Your task to perform on an android device: change the clock display to analog Image 0: 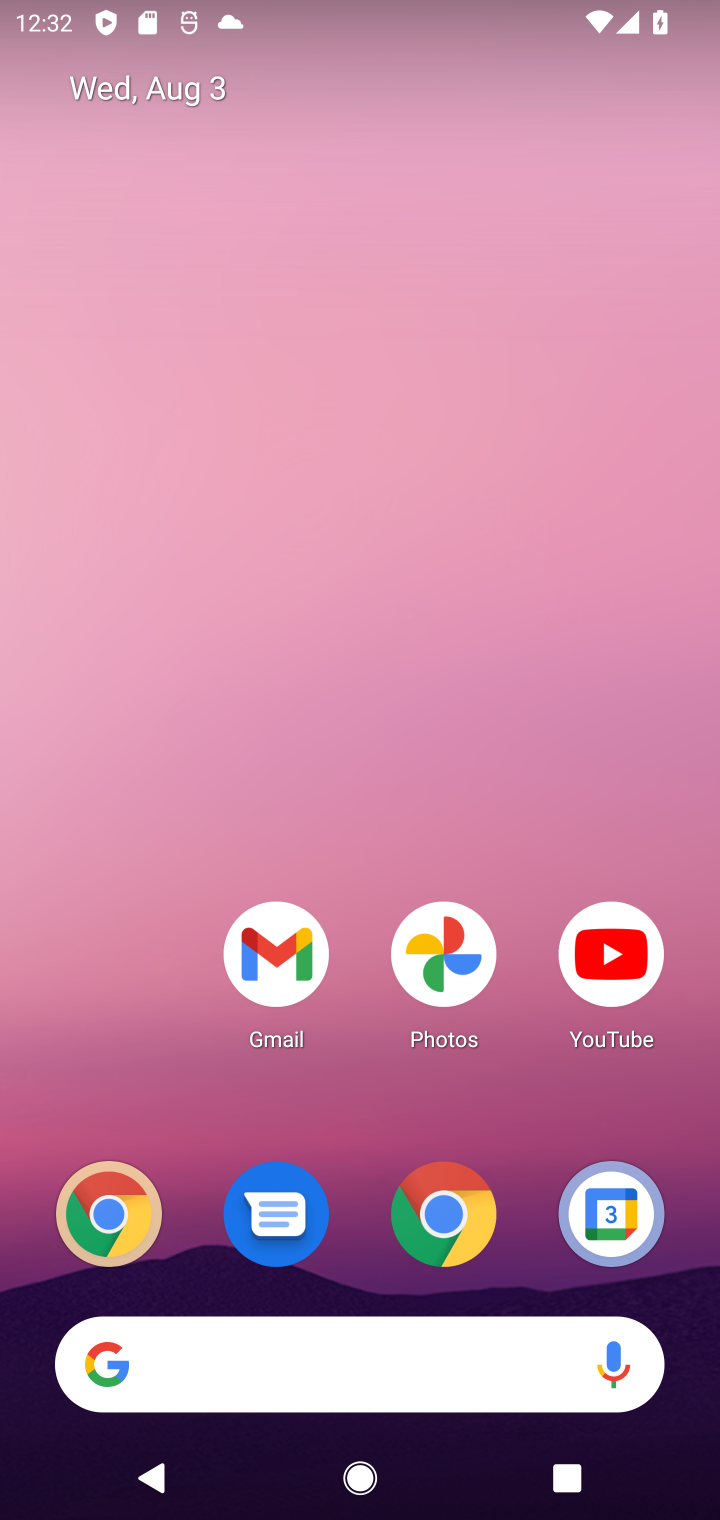
Step 0: drag from (359, 1295) to (334, 130)
Your task to perform on an android device: change the clock display to analog Image 1: 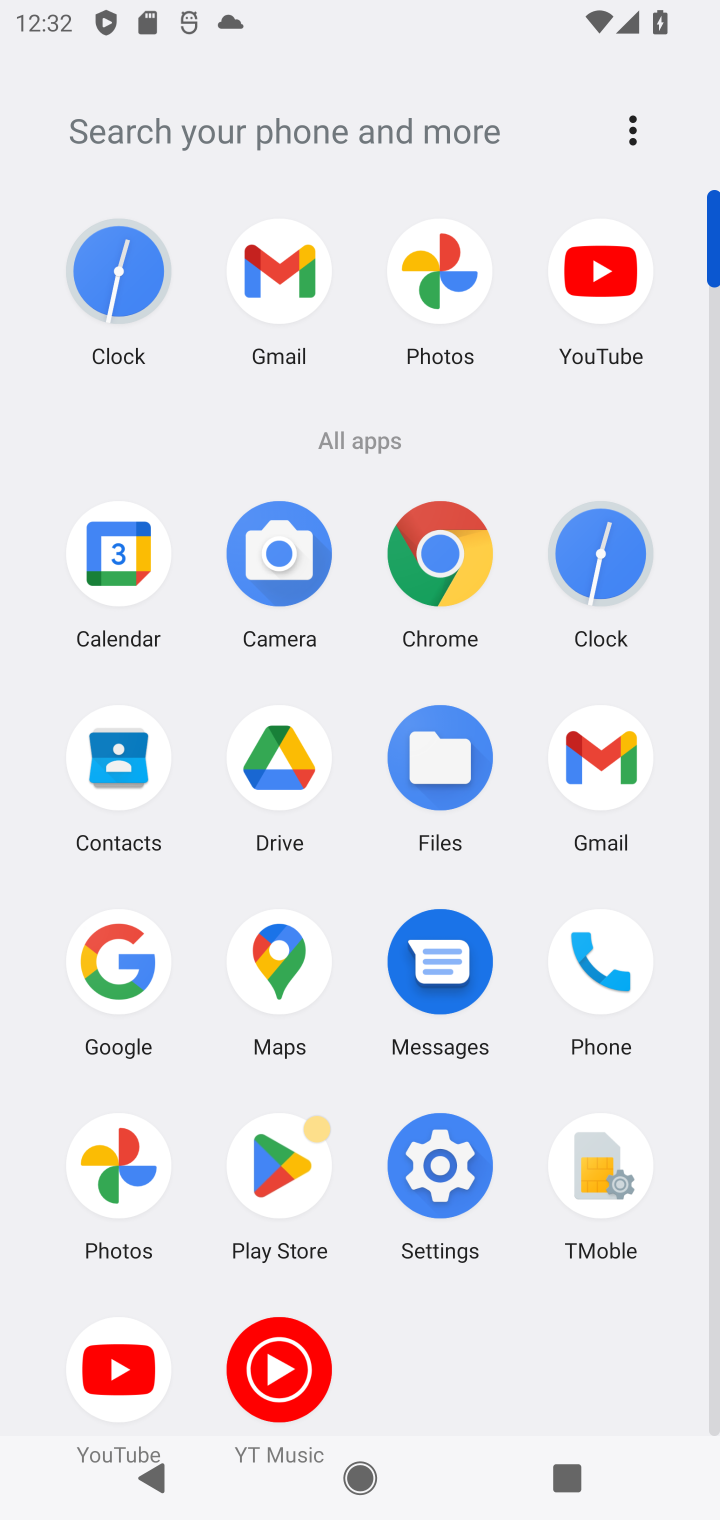
Step 1: click (133, 312)
Your task to perform on an android device: change the clock display to analog Image 2: 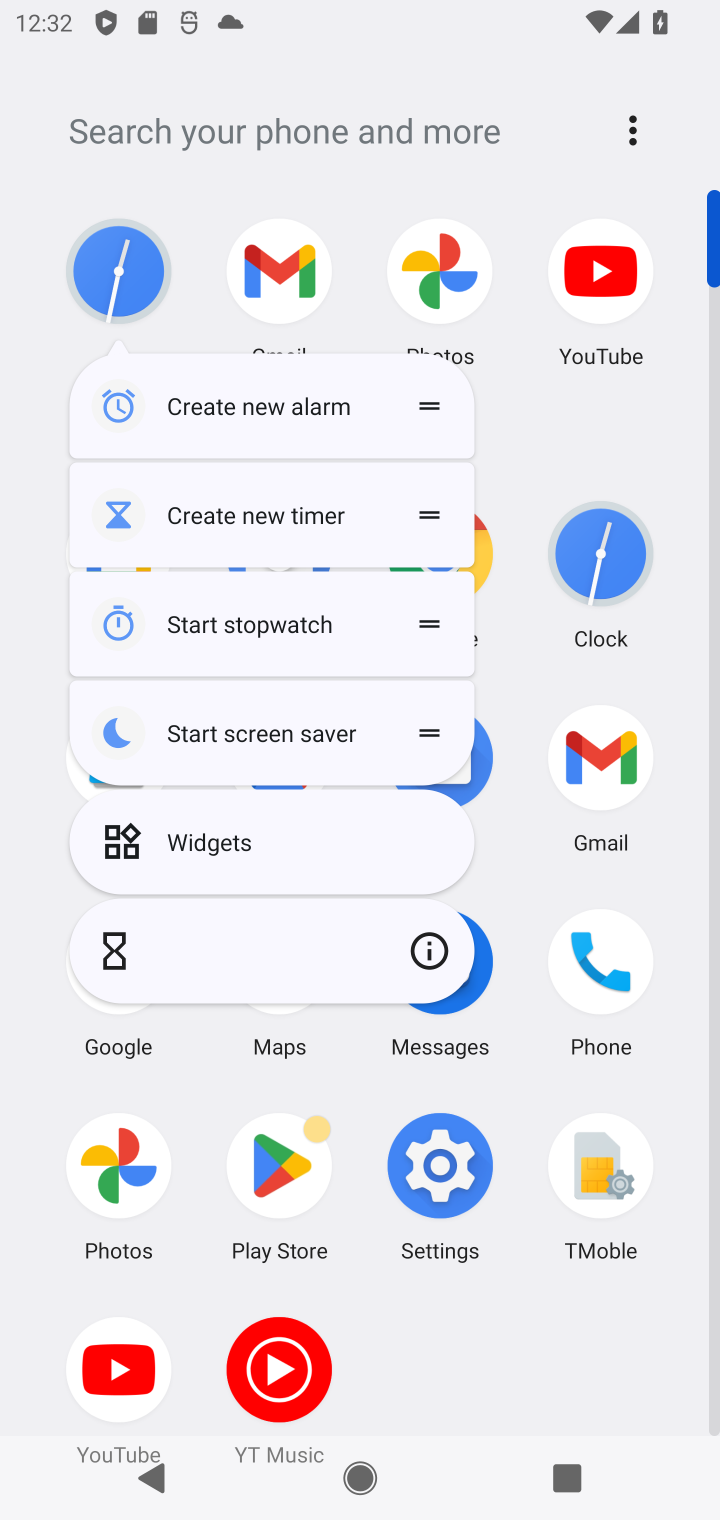
Step 2: click (133, 312)
Your task to perform on an android device: change the clock display to analog Image 3: 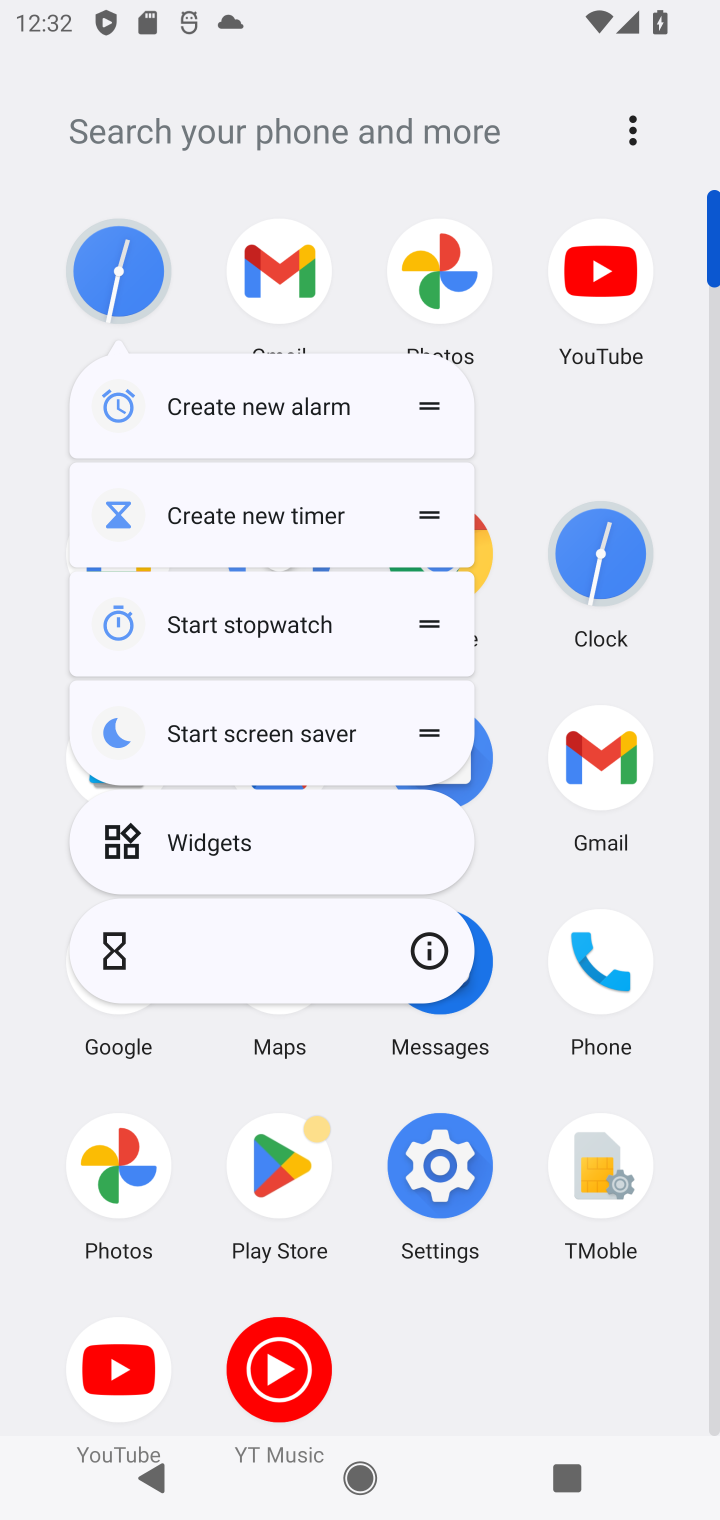
Step 3: click (123, 235)
Your task to perform on an android device: change the clock display to analog Image 4: 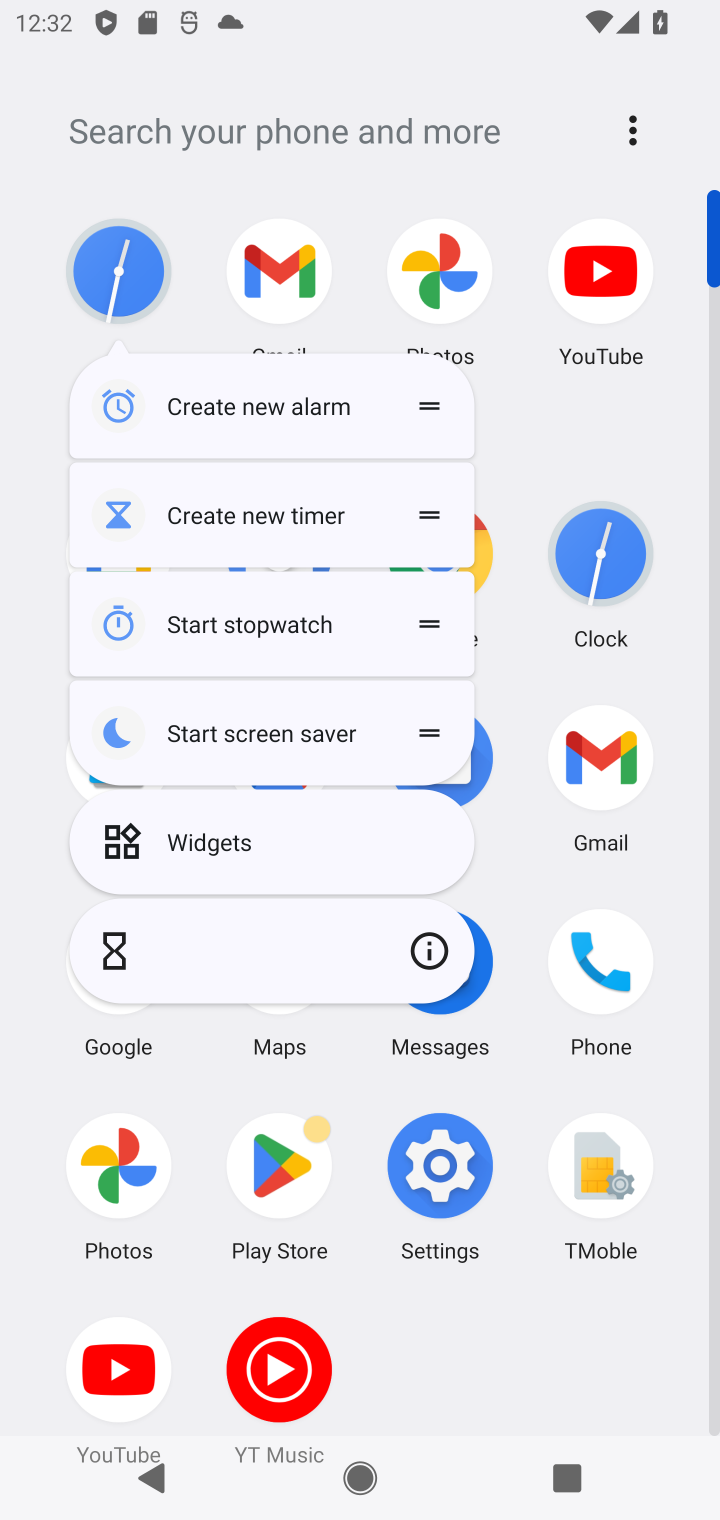
Step 4: click (123, 235)
Your task to perform on an android device: change the clock display to analog Image 5: 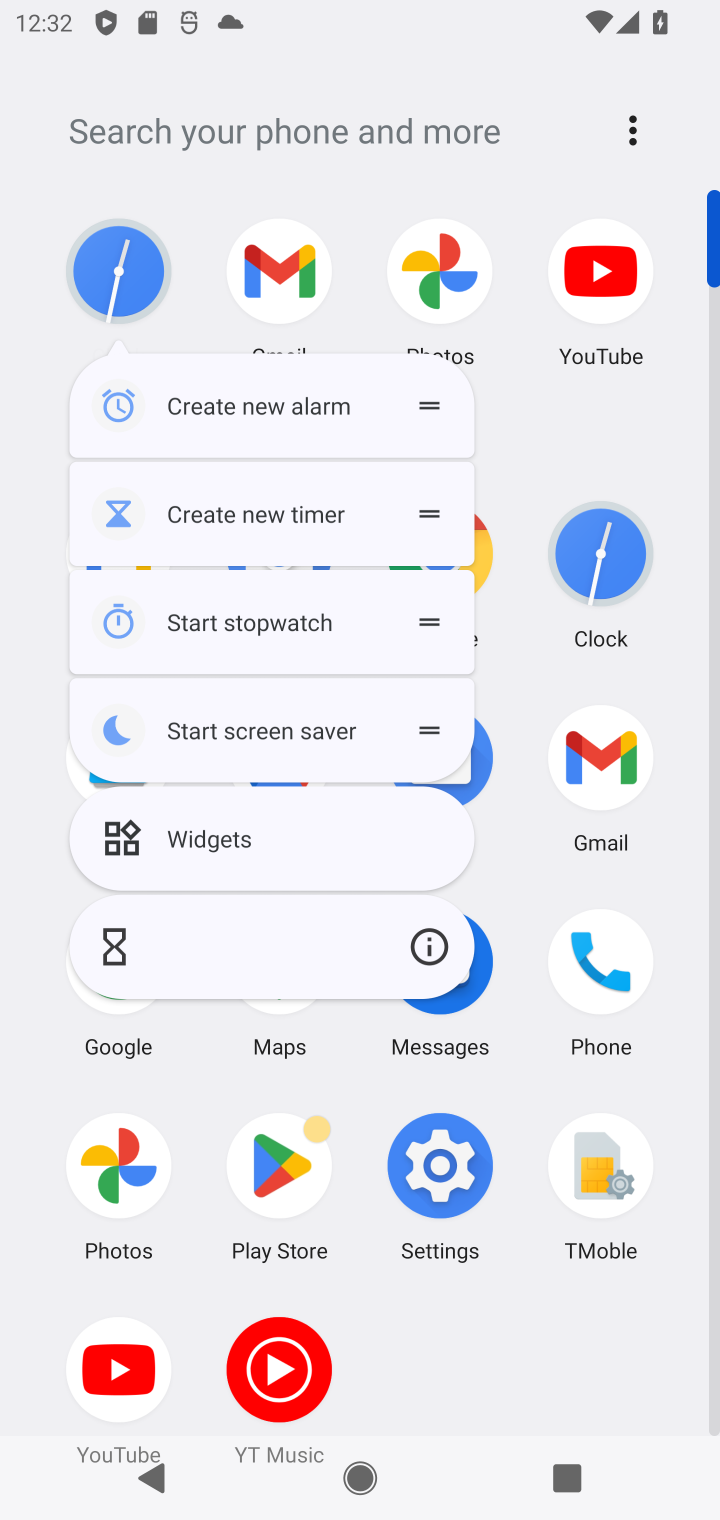
Step 5: click (123, 235)
Your task to perform on an android device: change the clock display to analog Image 6: 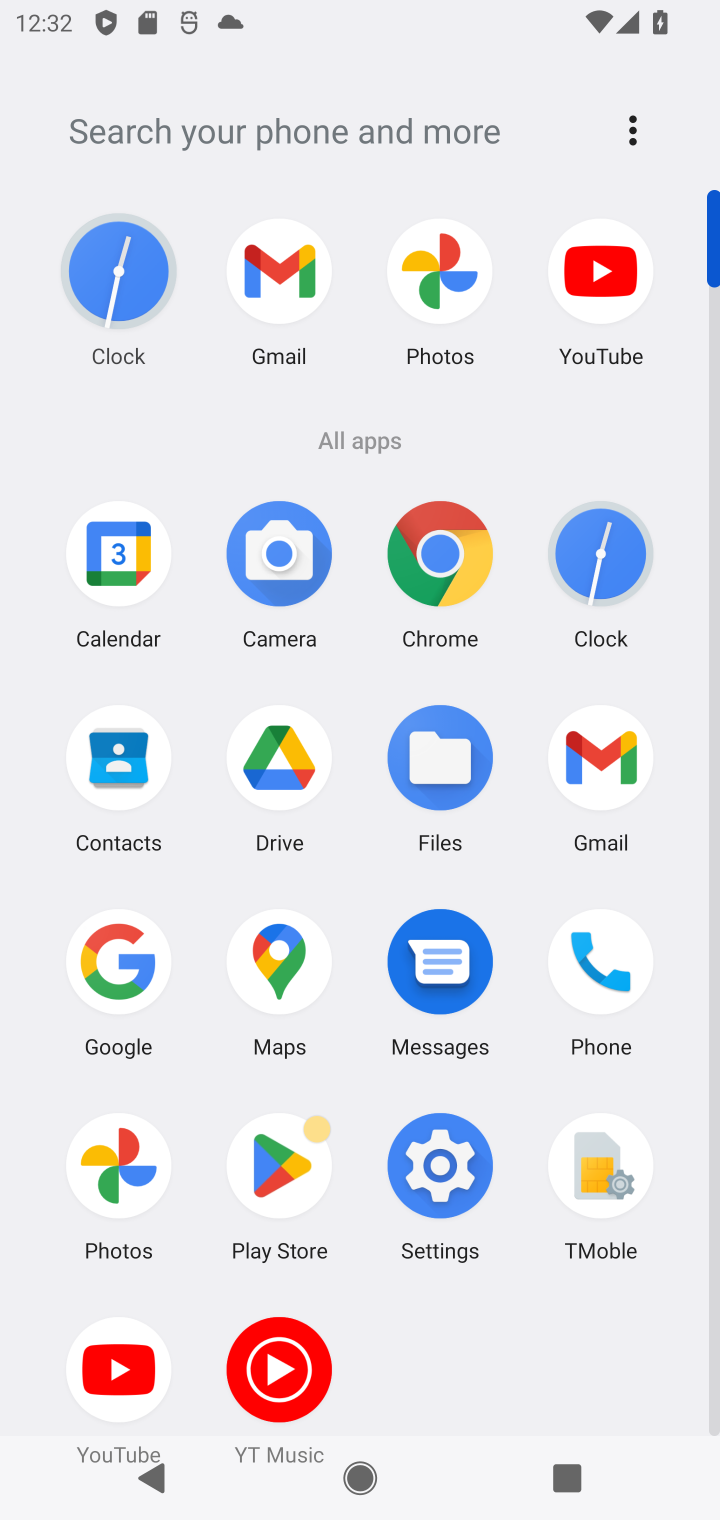
Step 6: click (123, 235)
Your task to perform on an android device: change the clock display to analog Image 7: 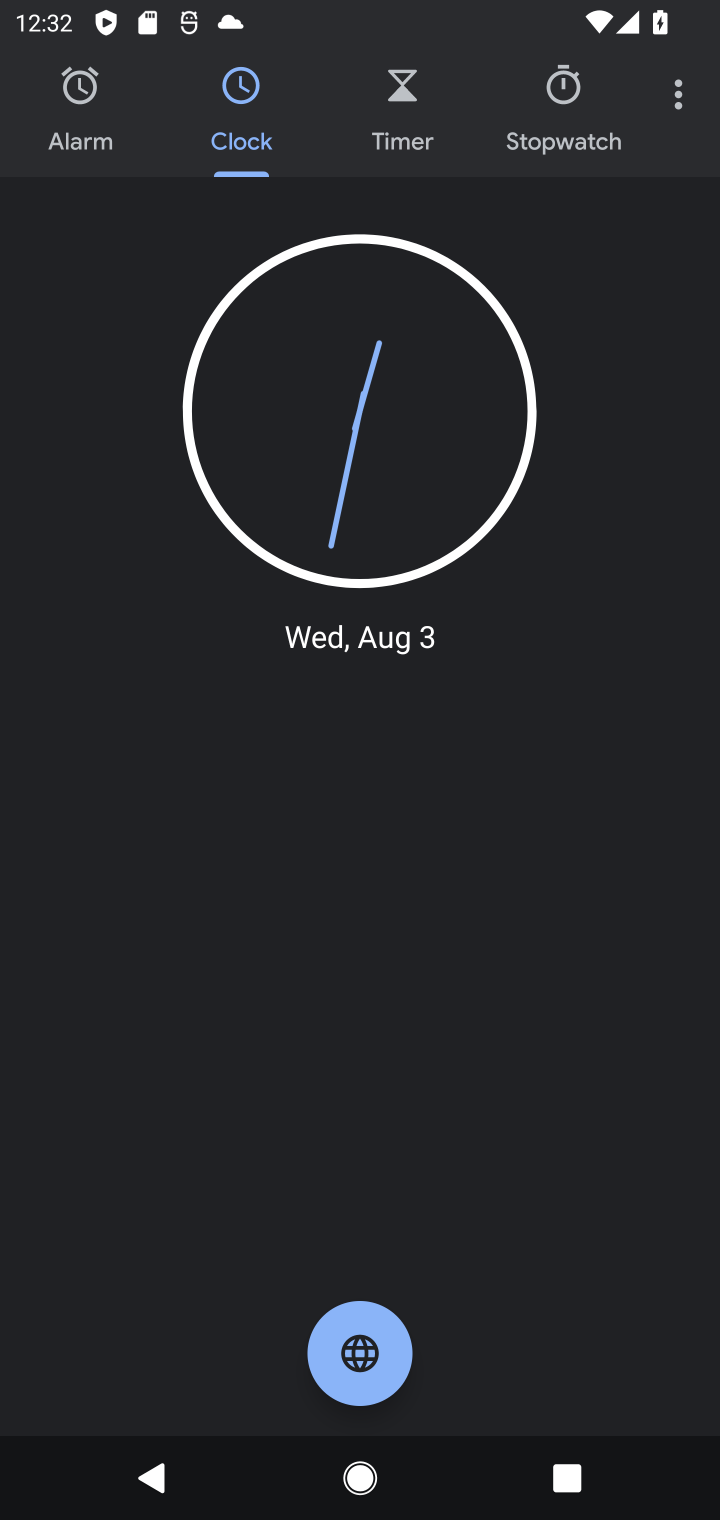
Step 7: click (123, 235)
Your task to perform on an android device: change the clock display to analog Image 8: 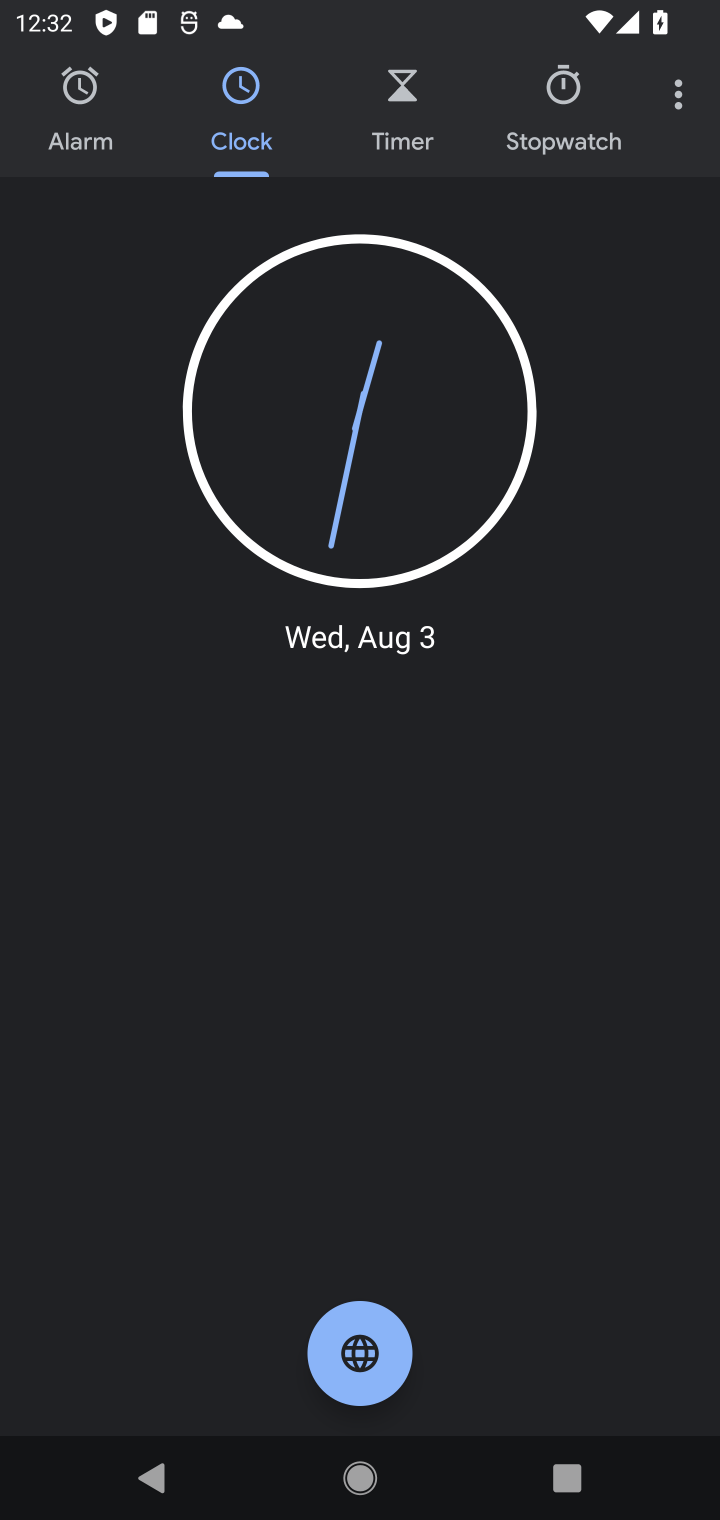
Step 8: click (689, 97)
Your task to perform on an android device: change the clock display to analog Image 9: 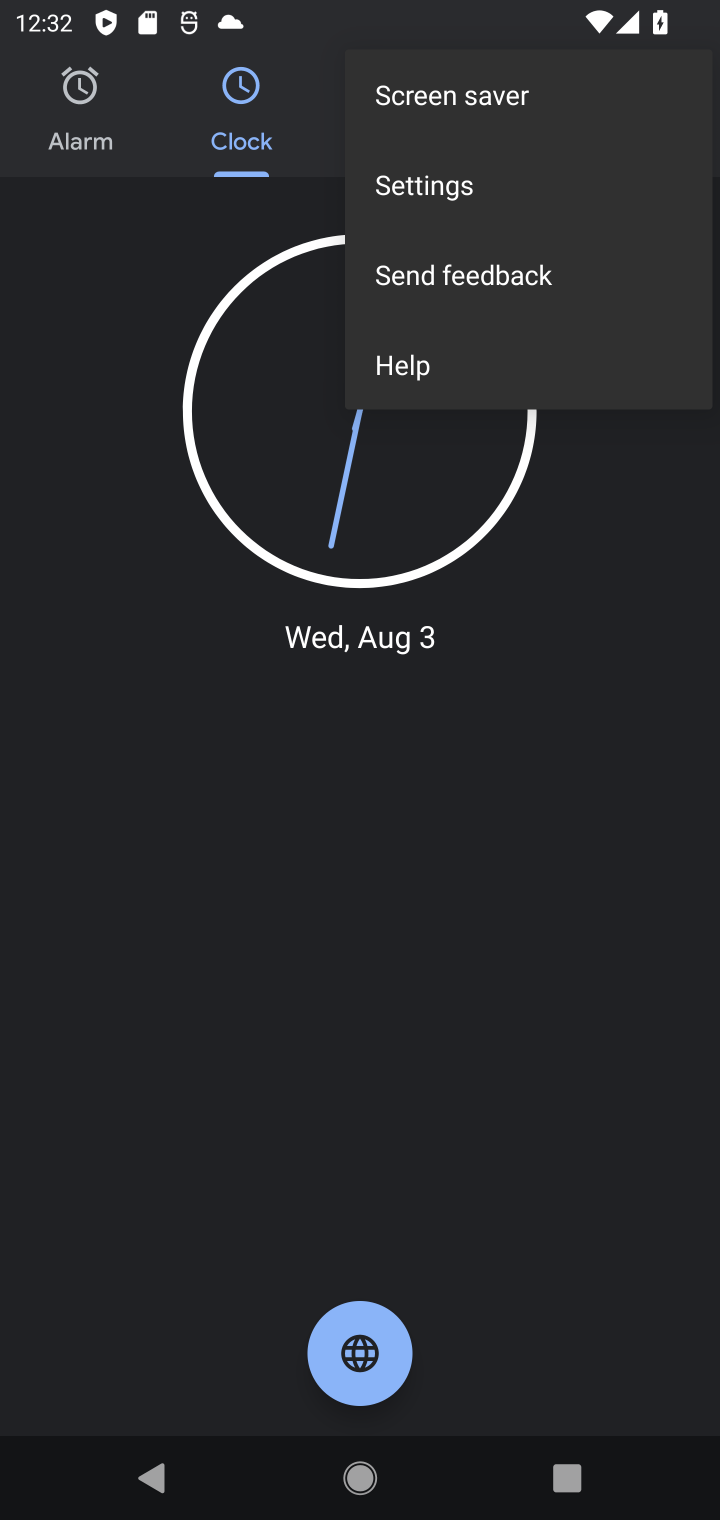
Step 9: click (520, 205)
Your task to perform on an android device: change the clock display to analog Image 10: 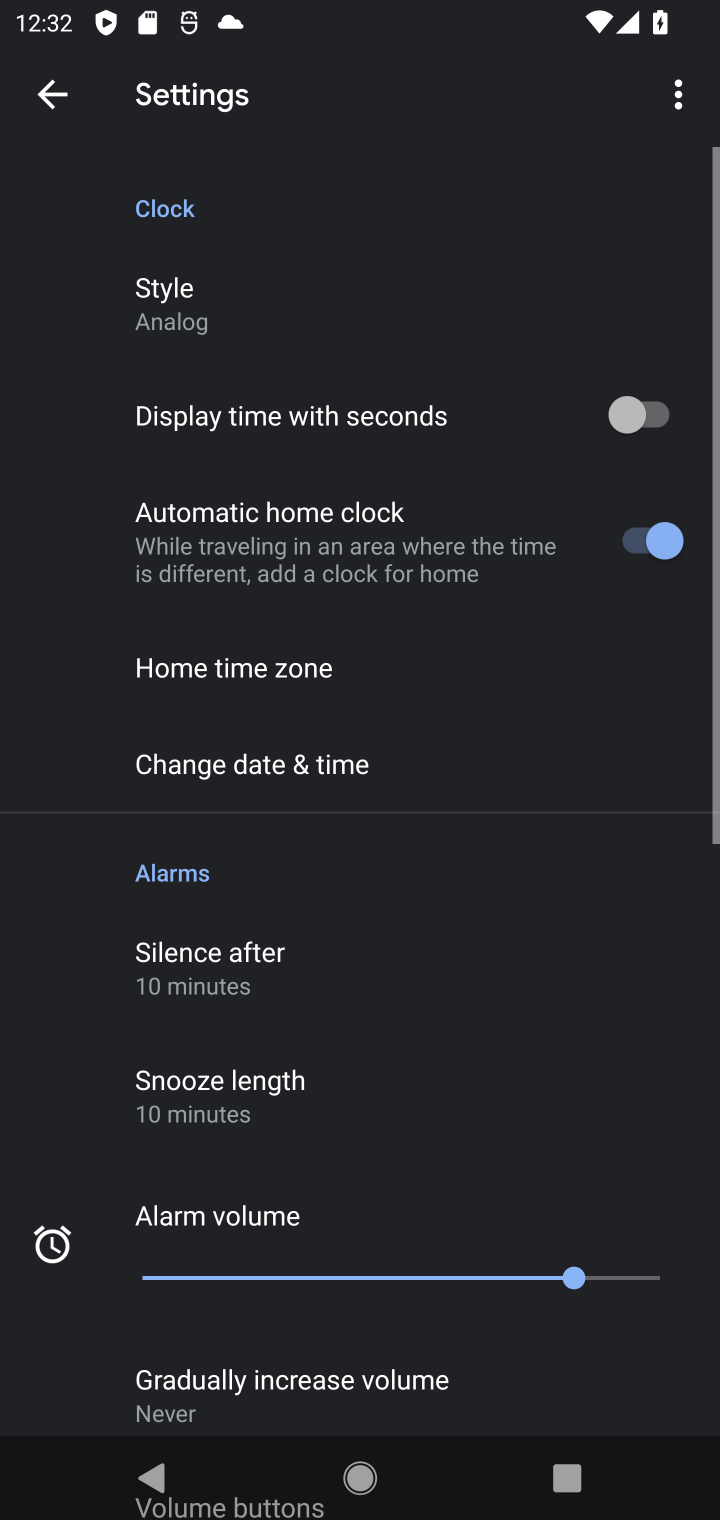
Step 10: click (220, 308)
Your task to perform on an android device: change the clock display to analog Image 11: 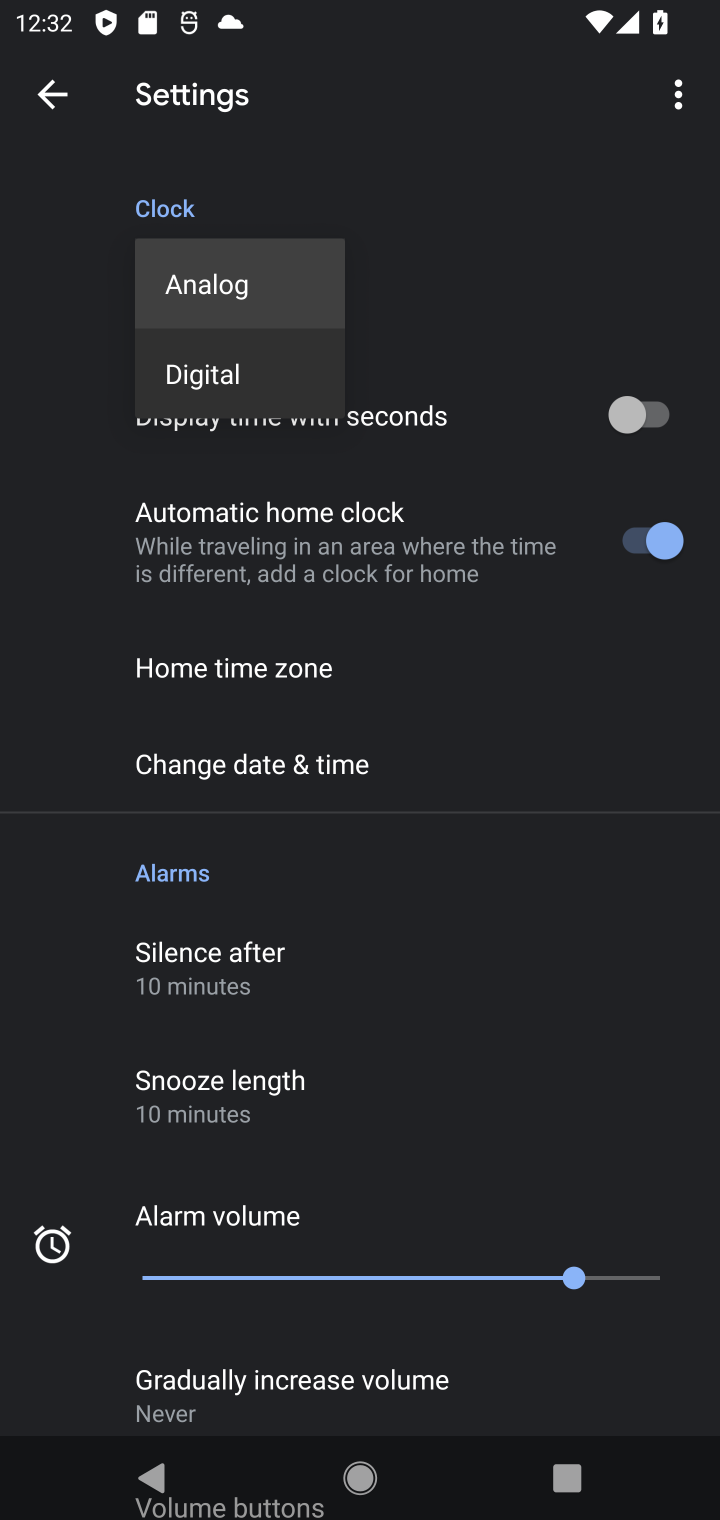
Step 11: task complete